Your task to perform on an android device: Go to notification settings Image 0: 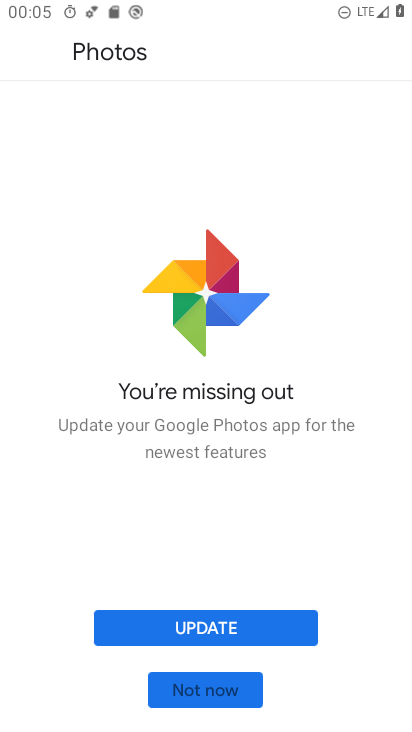
Step 0: press home button
Your task to perform on an android device: Go to notification settings Image 1: 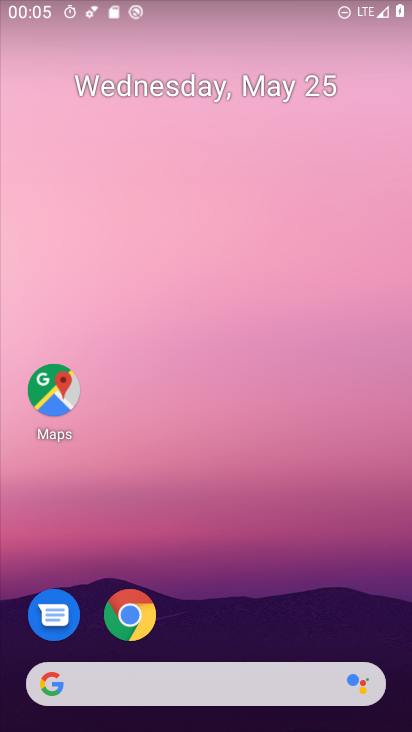
Step 1: drag from (264, 714) to (357, 2)
Your task to perform on an android device: Go to notification settings Image 2: 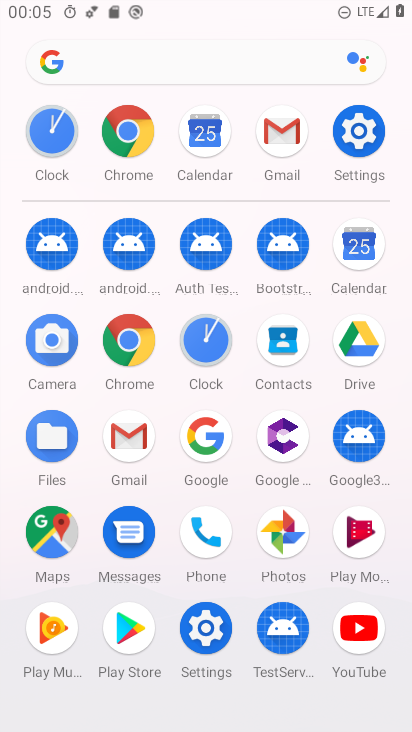
Step 2: click (366, 147)
Your task to perform on an android device: Go to notification settings Image 3: 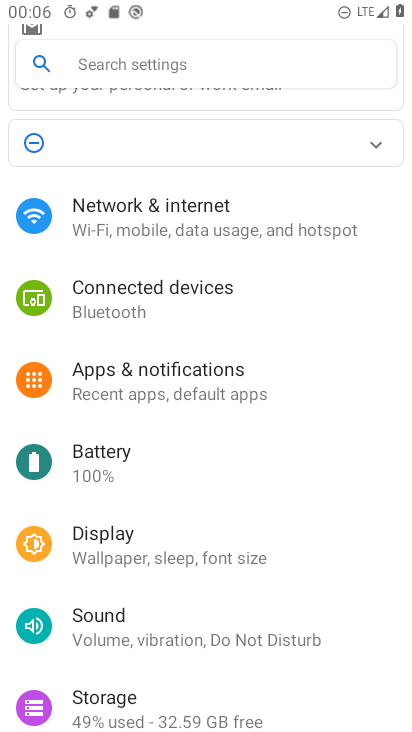
Step 3: click (188, 199)
Your task to perform on an android device: Go to notification settings Image 4: 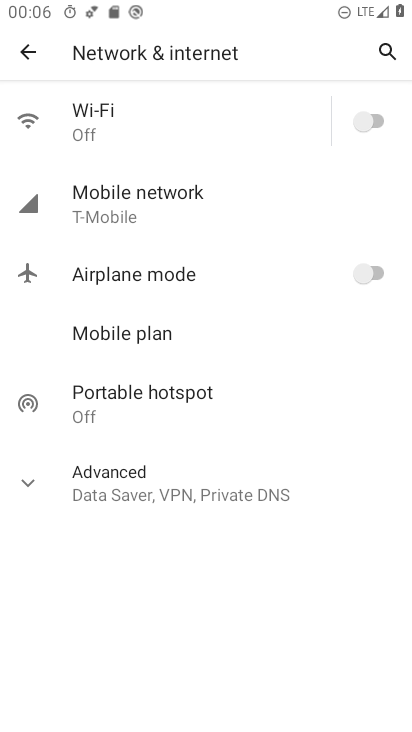
Step 4: task complete